Your task to perform on an android device: Open Chrome and go to the settings page Image 0: 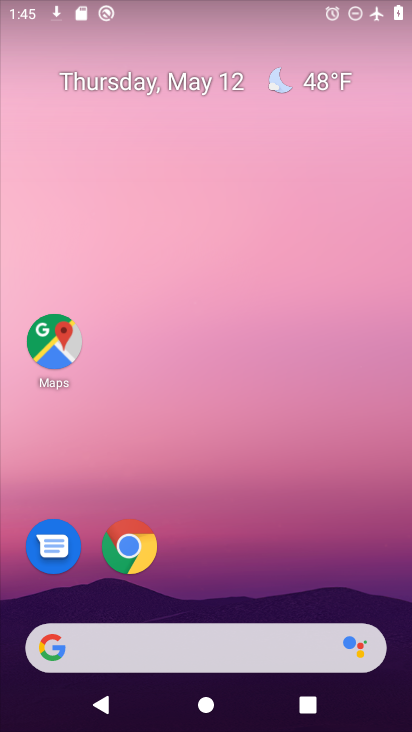
Step 0: drag from (196, 619) to (276, 263)
Your task to perform on an android device: Open Chrome and go to the settings page Image 1: 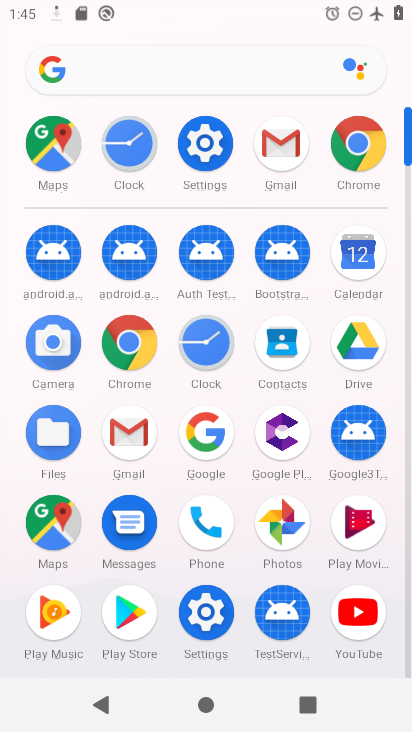
Step 1: click (368, 151)
Your task to perform on an android device: Open Chrome and go to the settings page Image 2: 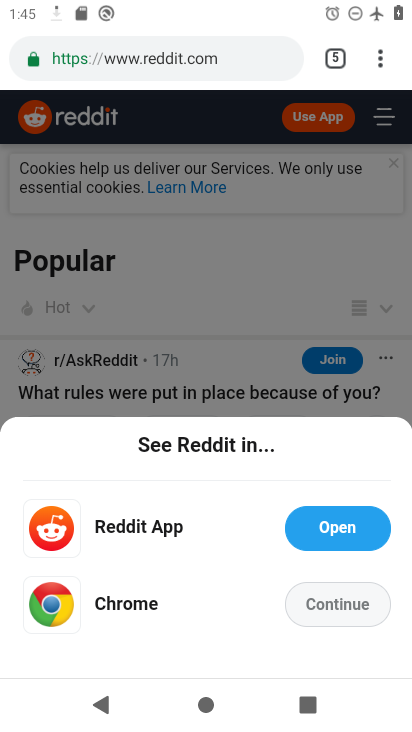
Step 2: task complete